Your task to perform on an android device: check storage Image 0: 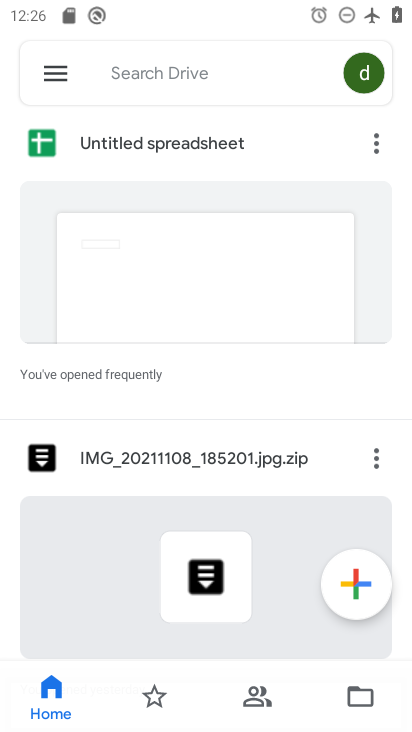
Step 0: press home button
Your task to perform on an android device: check storage Image 1: 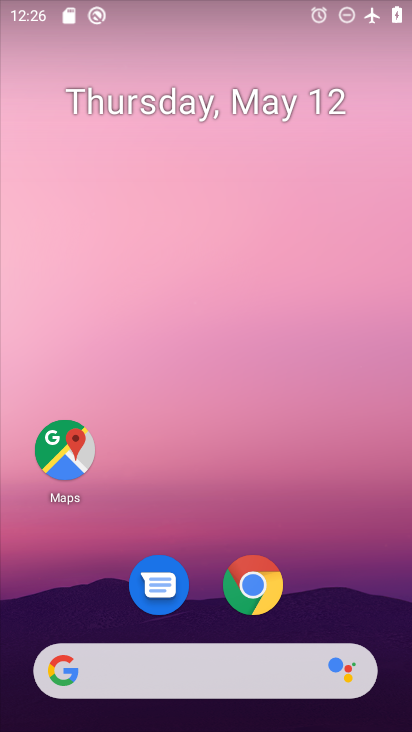
Step 1: drag from (270, 447) to (282, 16)
Your task to perform on an android device: check storage Image 2: 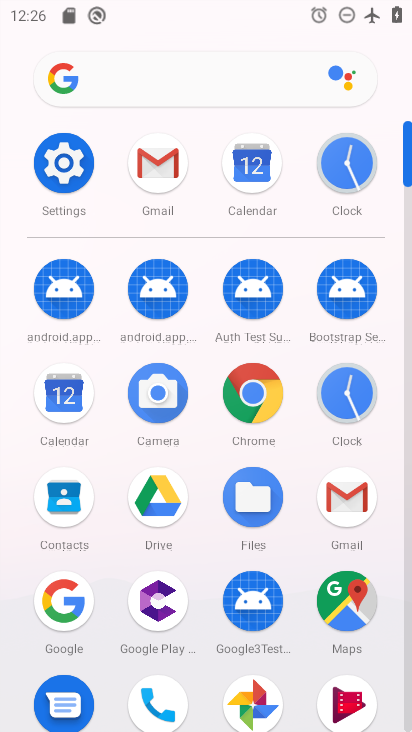
Step 2: click (67, 163)
Your task to perform on an android device: check storage Image 3: 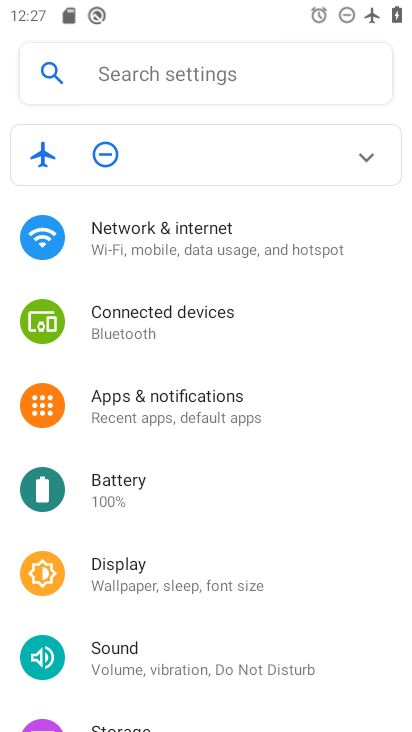
Step 3: drag from (173, 550) to (216, 128)
Your task to perform on an android device: check storage Image 4: 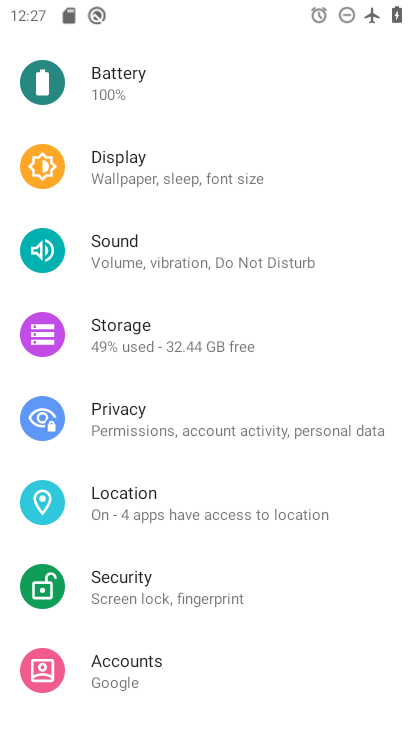
Step 4: click (188, 336)
Your task to perform on an android device: check storage Image 5: 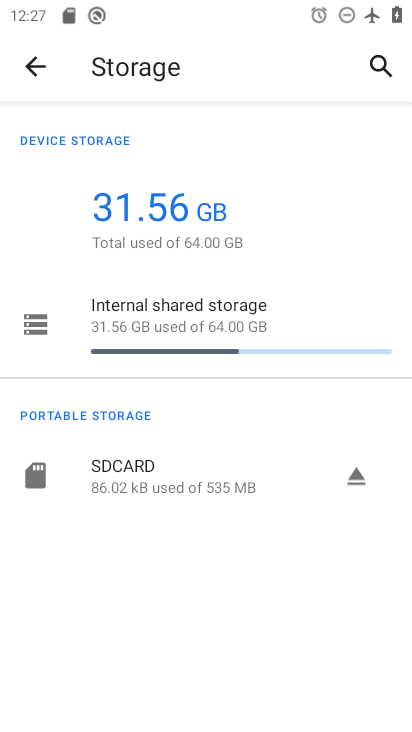
Step 5: task complete